Your task to perform on an android device: delete the emails in spam in the gmail app Image 0: 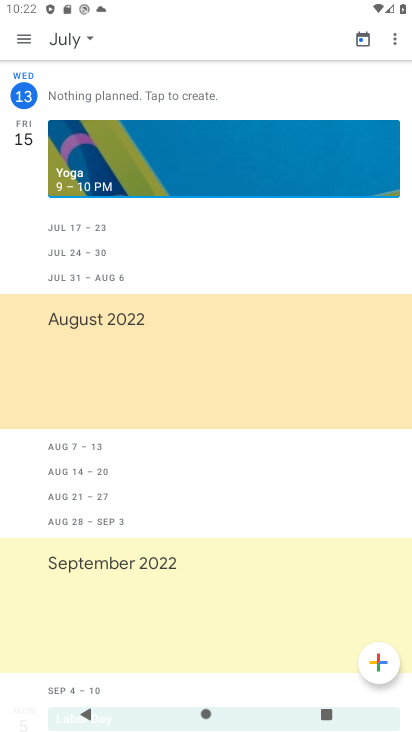
Step 0: press home button
Your task to perform on an android device: delete the emails in spam in the gmail app Image 1: 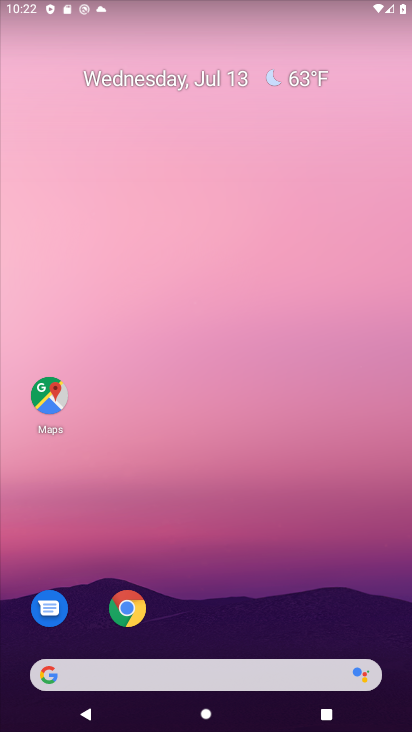
Step 1: drag from (205, 660) to (289, 175)
Your task to perform on an android device: delete the emails in spam in the gmail app Image 2: 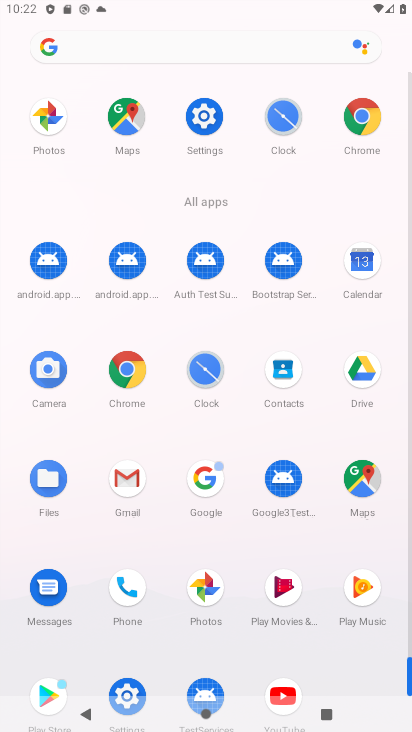
Step 2: click (112, 471)
Your task to perform on an android device: delete the emails in spam in the gmail app Image 3: 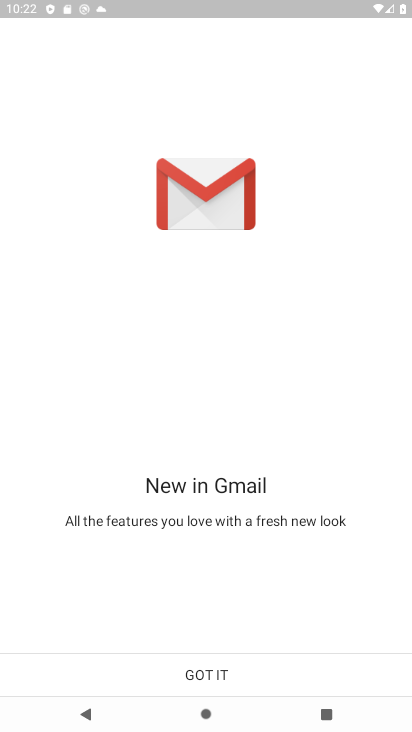
Step 3: click (248, 682)
Your task to perform on an android device: delete the emails in spam in the gmail app Image 4: 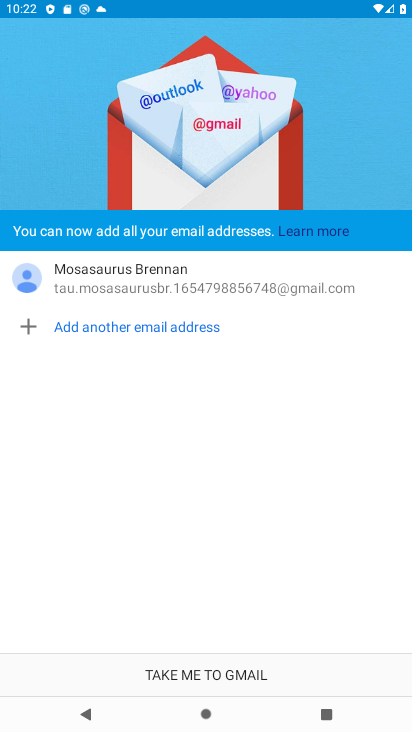
Step 4: click (248, 682)
Your task to perform on an android device: delete the emails in spam in the gmail app Image 5: 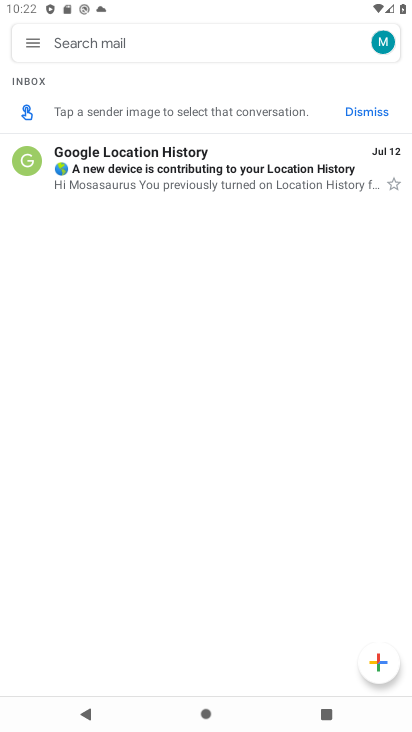
Step 5: click (49, 46)
Your task to perform on an android device: delete the emails in spam in the gmail app Image 6: 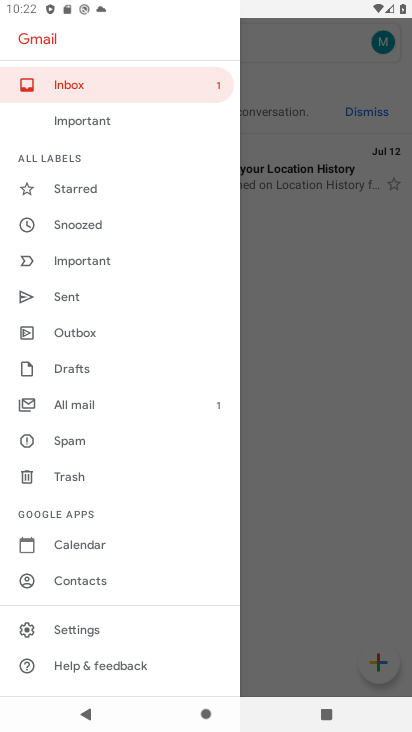
Step 6: click (77, 439)
Your task to perform on an android device: delete the emails in spam in the gmail app Image 7: 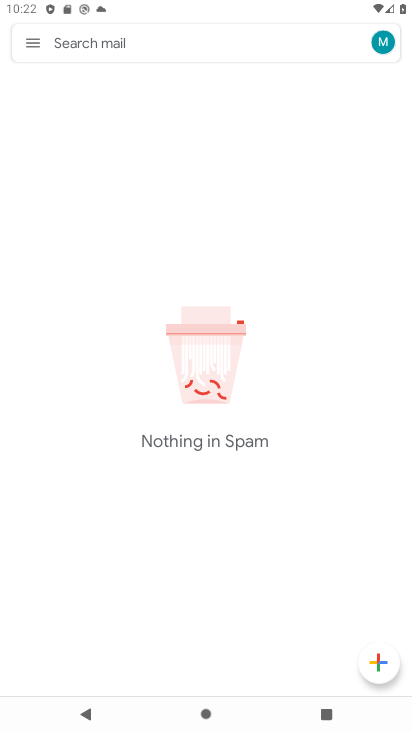
Step 7: task complete